Your task to perform on an android device: add a contact in the contacts app Image 0: 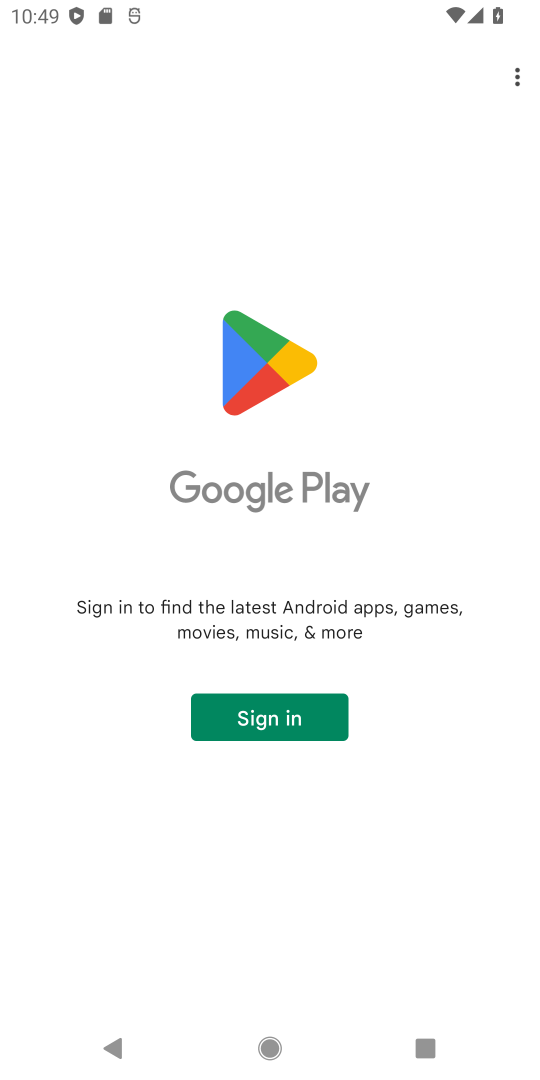
Step 0: press home button
Your task to perform on an android device: add a contact in the contacts app Image 1: 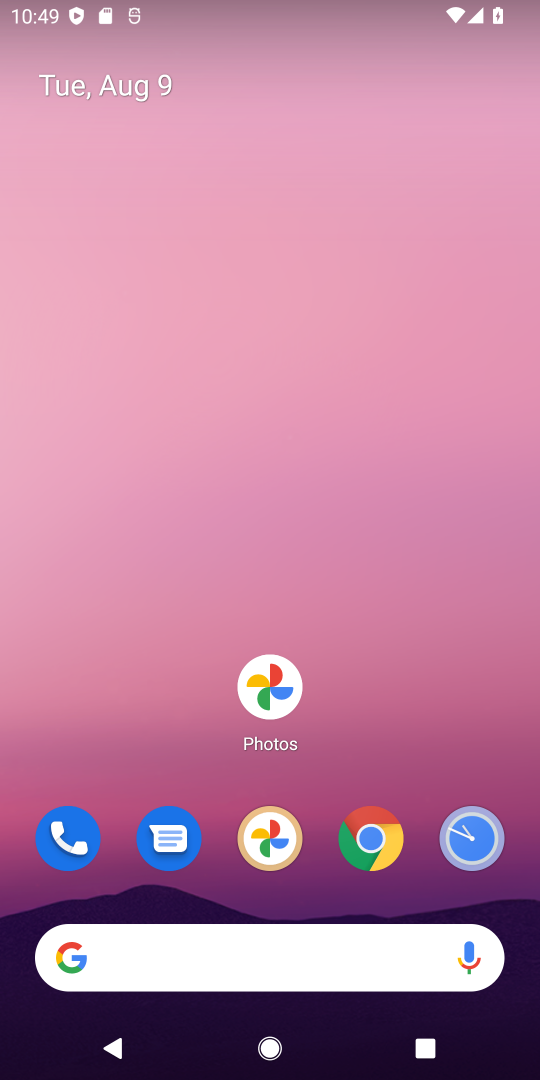
Step 1: drag from (292, 910) to (231, 497)
Your task to perform on an android device: add a contact in the contacts app Image 2: 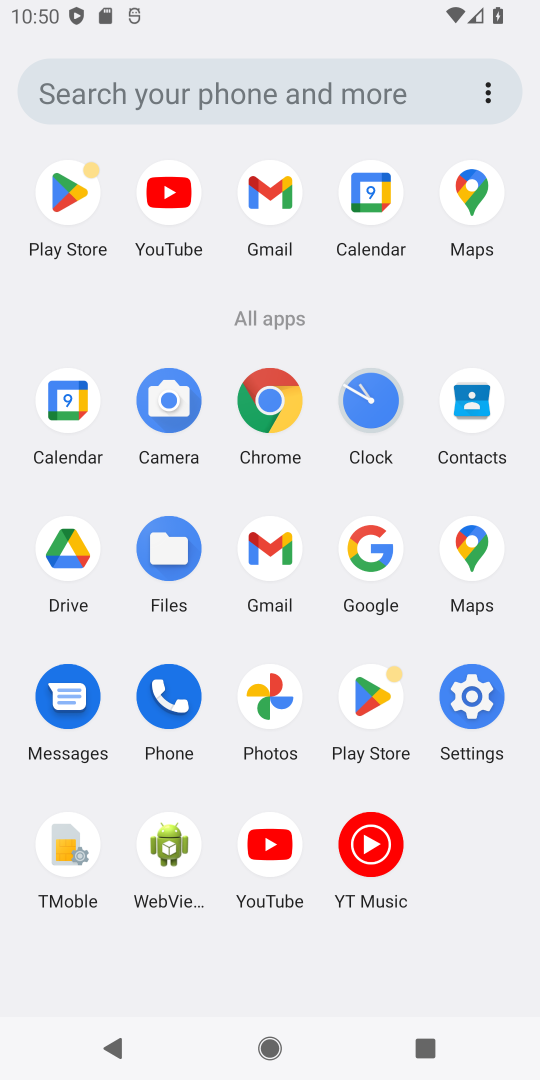
Step 2: click (493, 418)
Your task to perform on an android device: add a contact in the contacts app Image 3: 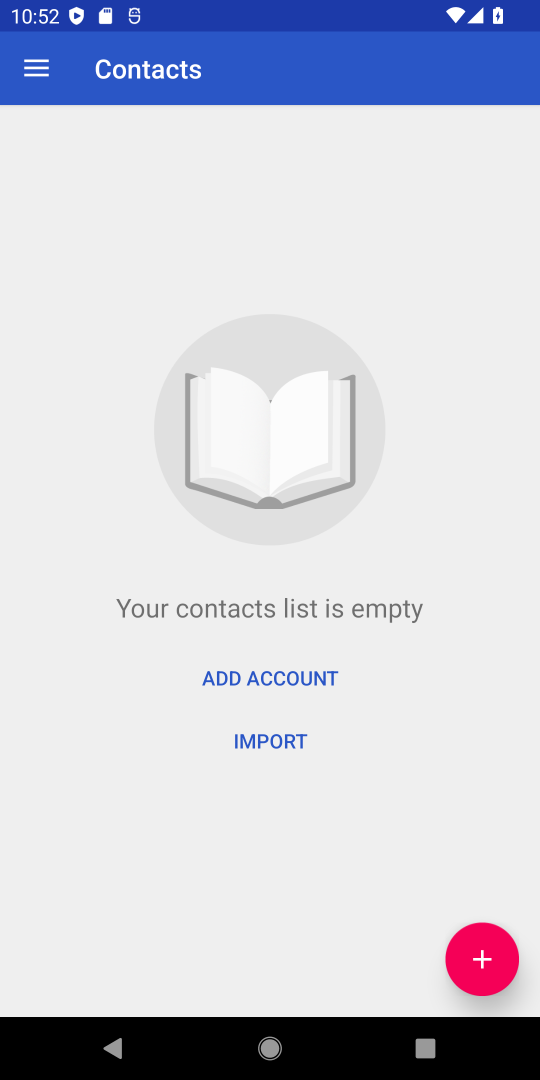
Step 3: click (483, 964)
Your task to perform on an android device: add a contact in the contacts app Image 4: 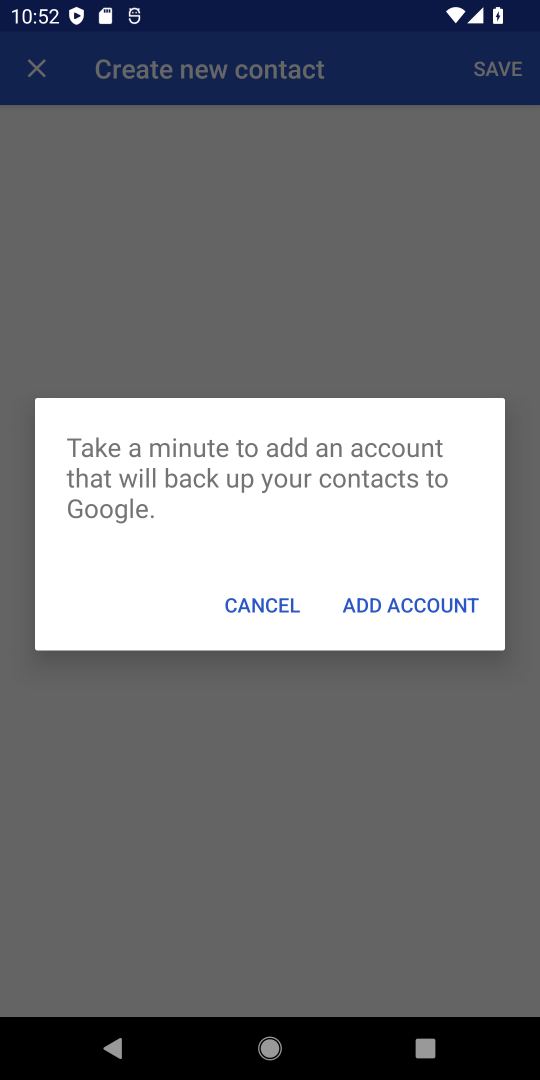
Step 4: click (435, 625)
Your task to perform on an android device: add a contact in the contacts app Image 5: 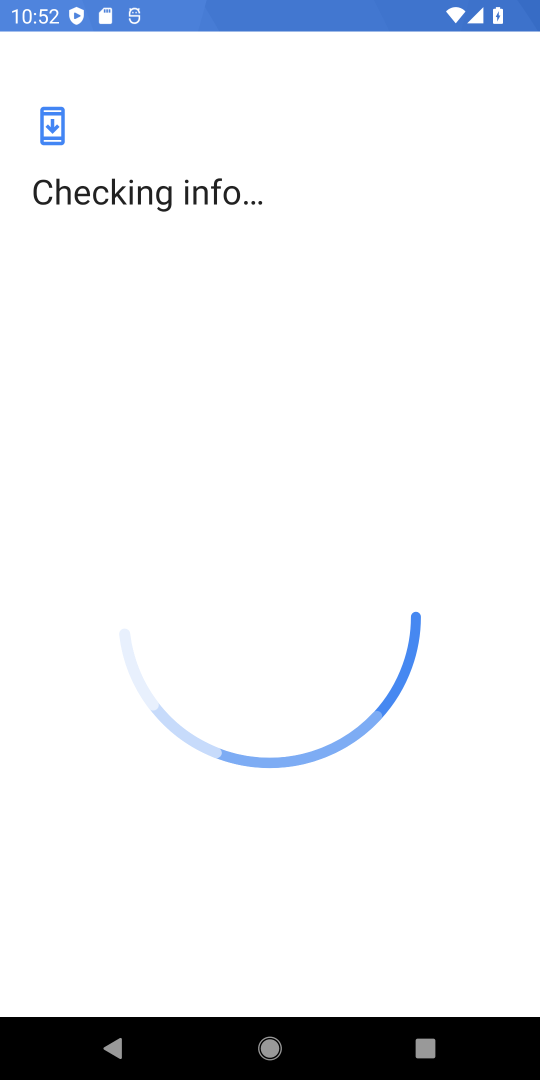
Step 5: task complete